Your task to perform on an android device: visit the assistant section in the google photos Image 0: 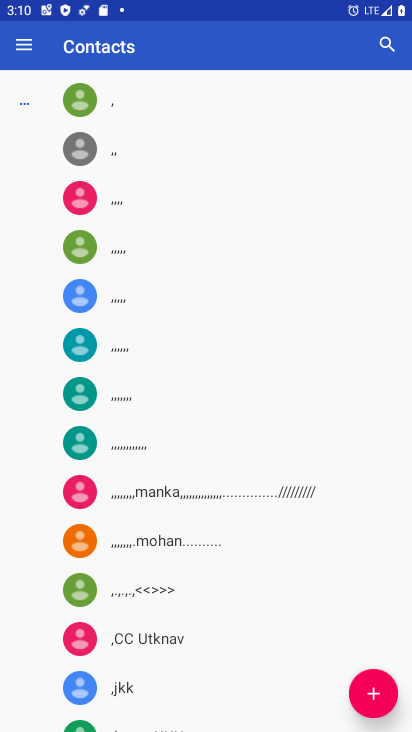
Step 0: press home button
Your task to perform on an android device: visit the assistant section in the google photos Image 1: 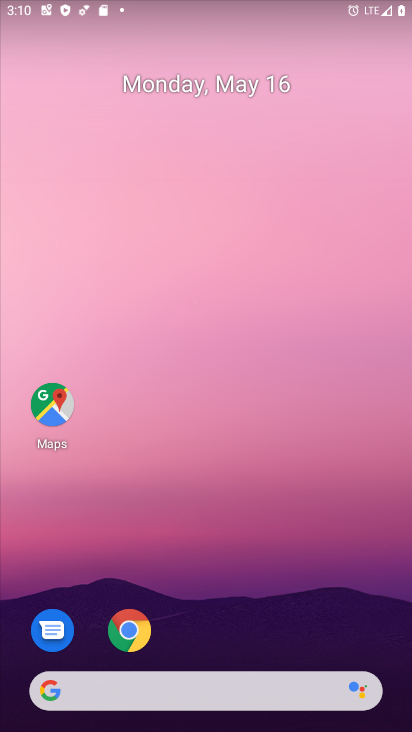
Step 1: drag from (222, 646) to (282, 26)
Your task to perform on an android device: visit the assistant section in the google photos Image 2: 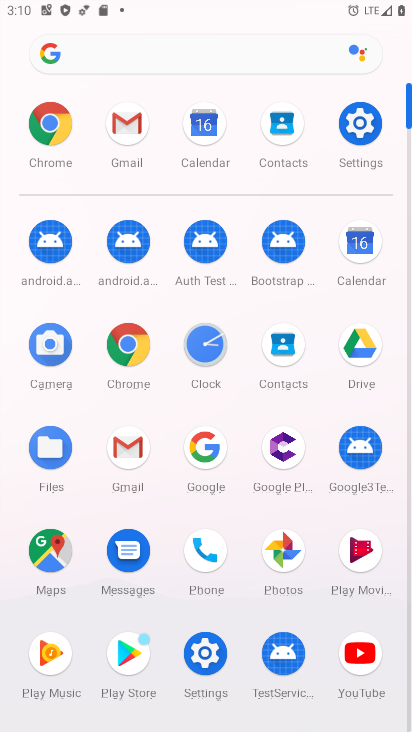
Step 2: click (282, 542)
Your task to perform on an android device: visit the assistant section in the google photos Image 3: 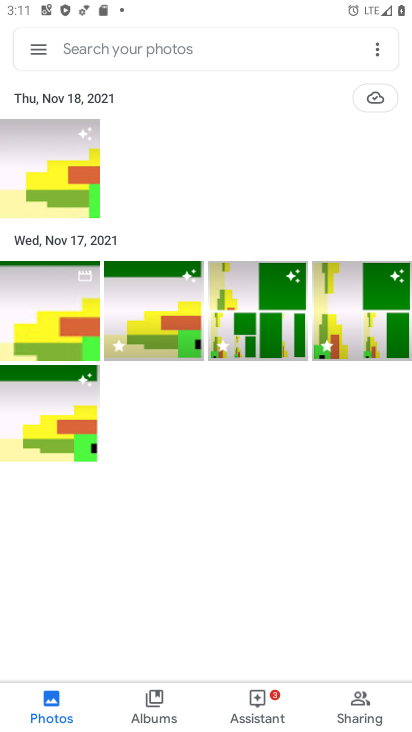
Step 3: click (252, 692)
Your task to perform on an android device: visit the assistant section in the google photos Image 4: 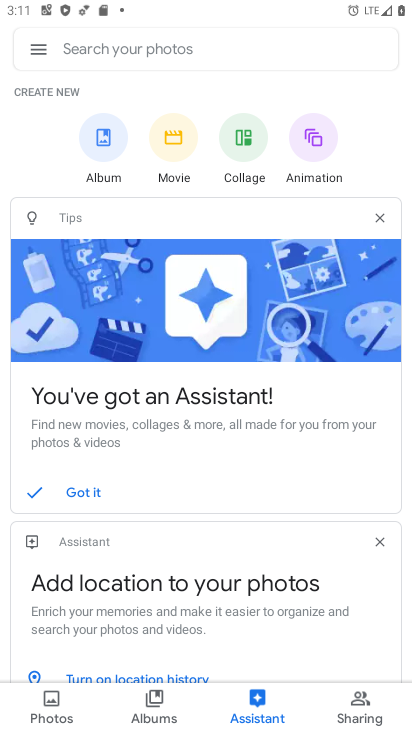
Step 4: task complete